Your task to perform on an android device: toggle data saver in the chrome app Image 0: 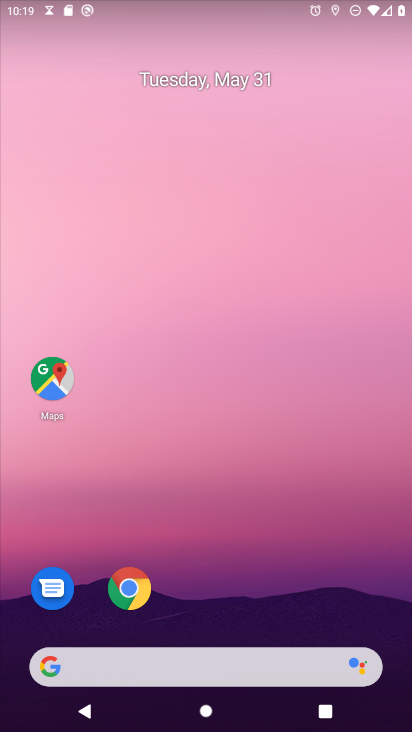
Step 0: click (128, 590)
Your task to perform on an android device: toggle data saver in the chrome app Image 1: 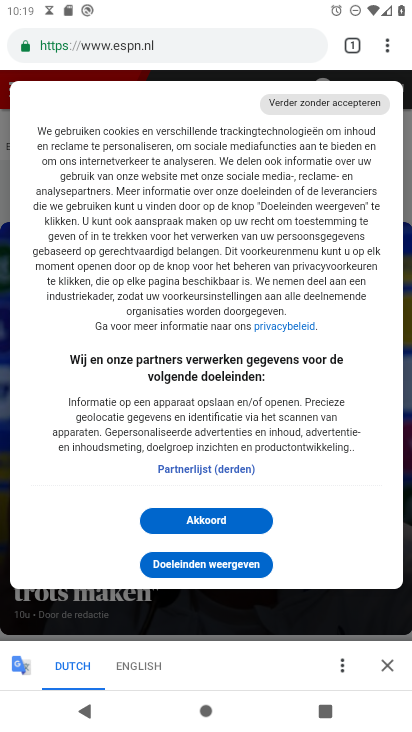
Step 1: click (386, 49)
Your task to perform on an android device: toggle data saver in the chrome app Image 2: 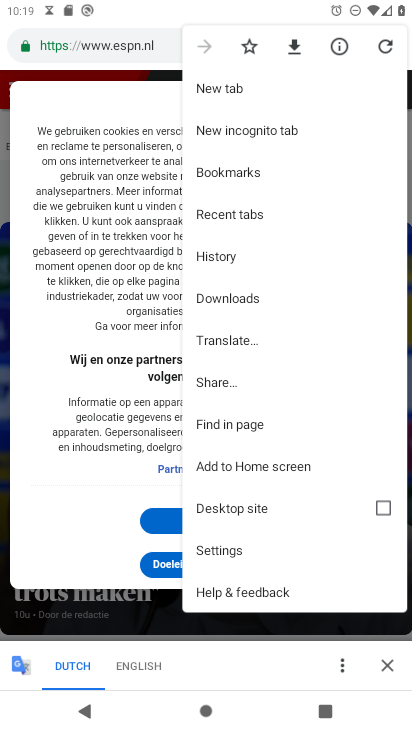
Step 2: click (243, 551)
Your task to perform on an android device: toggle data saver in the chrome app Image 3: 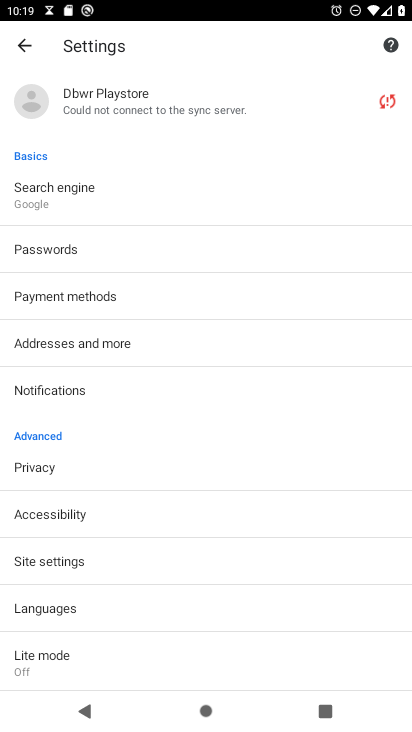
Step 3: click (45, 659)
Your task to perform on an android device: toggle data saver in the chrome app Image 4: 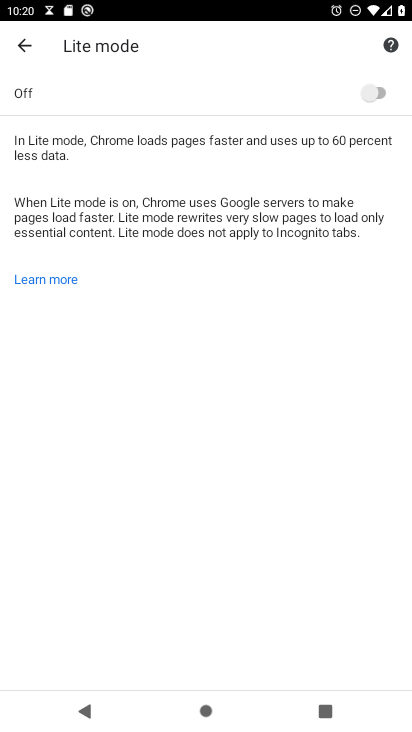
Step 4: click (371, 89)
Your task to perform on an android device: toggle data saver in the chrome app Image 5: 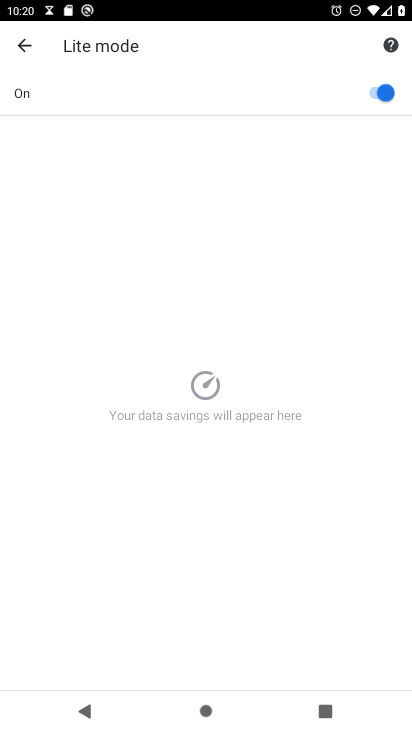
Step 5: task complete